Your task to perform on an android device: Open Yahoo.com Image 0: 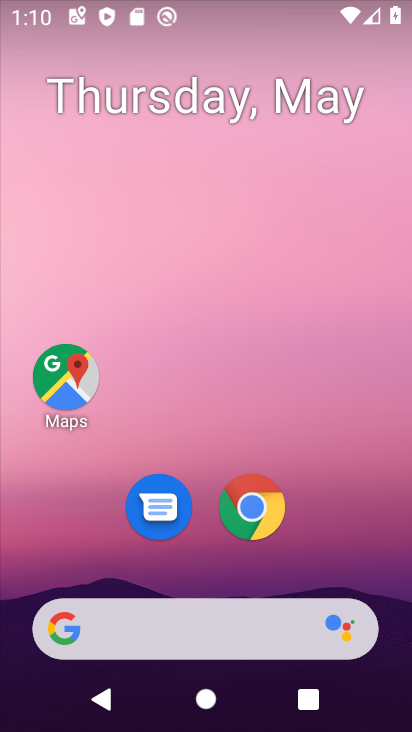
Step 0: drag from (365, 595) to (266, 5)
Your task to perform on an android device: Open Yahoo.com Image 1: 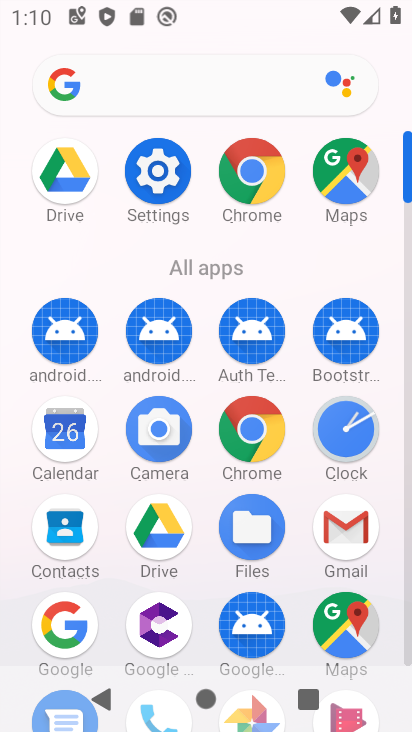
Step 1: click (229, 440)
Your task to perform on an android device: Open Yahoo.com Image 2: 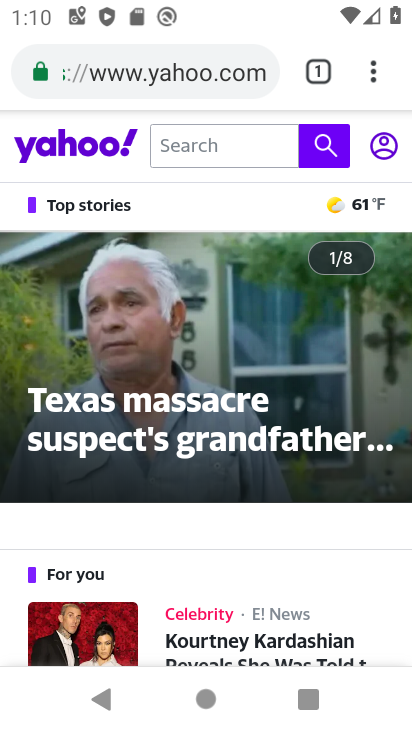
Step 2: task complete